Your task to perform on an android device: Open Reddit.com Image 0: 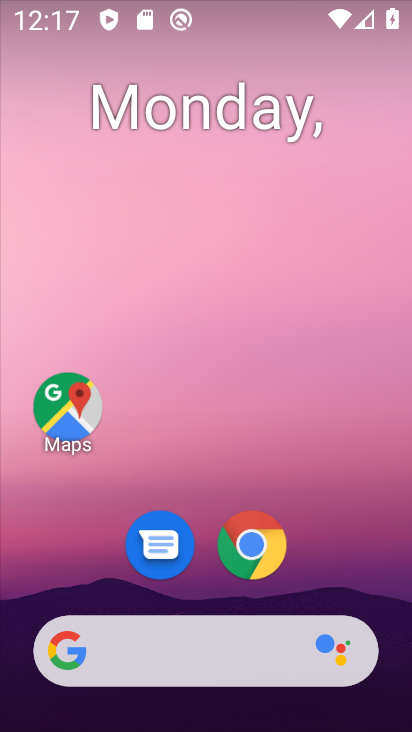
Step 0: press home button
Your task to perform on an android device: Open Reddit.com Image 1: 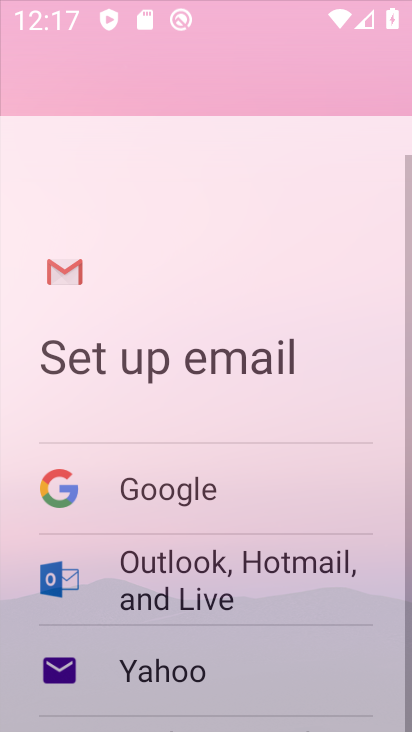
Step 1: drag from (204, 579) to (211, 434)
Your task to perform on an android device: Open Reddit.com Image 2: 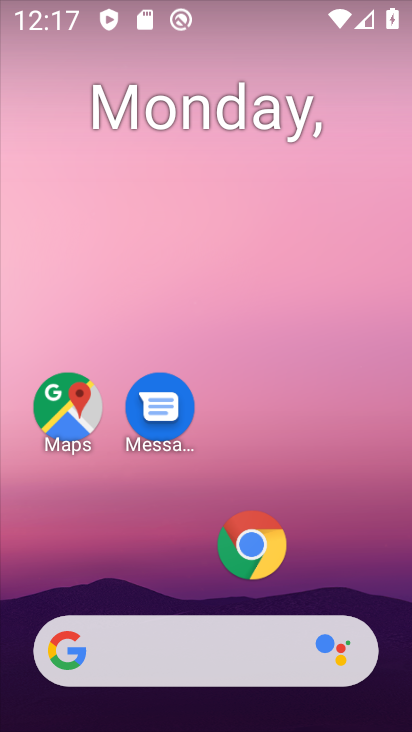
Step 2: drag from (189, 557) to (235, 184)
Your task to perform on an android device: Open Reddit.com Image 3: 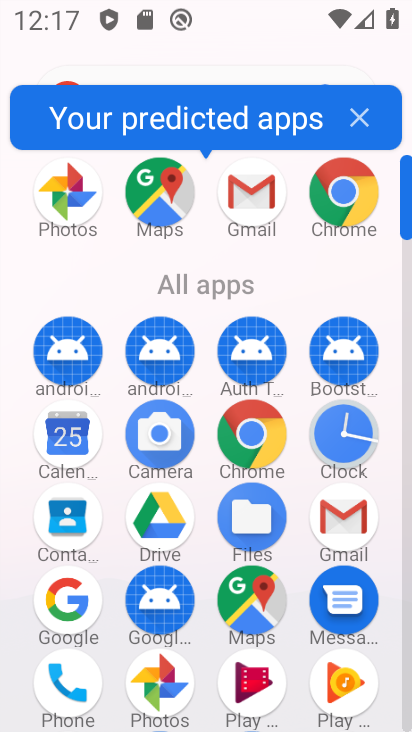
Step 3: click (68, 599)
Your task to perform on an android device: Open Reddit.com Image 4: 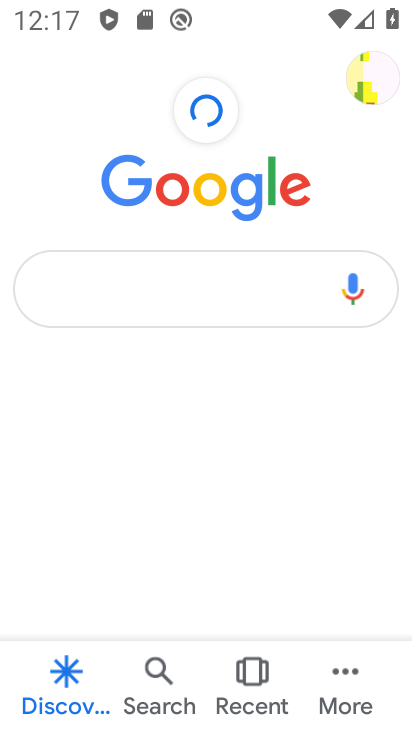
Step 4: click (150, 283)
Your task to perform on an android device: Open Reddit.com Image 5: 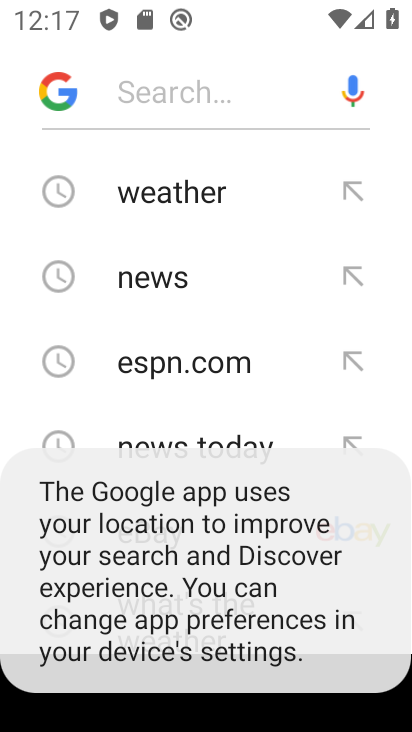
Step 5: drag from (207, 364) to (227, 110)
Your task to perform on an android device: Open Reddit.com Image 6: 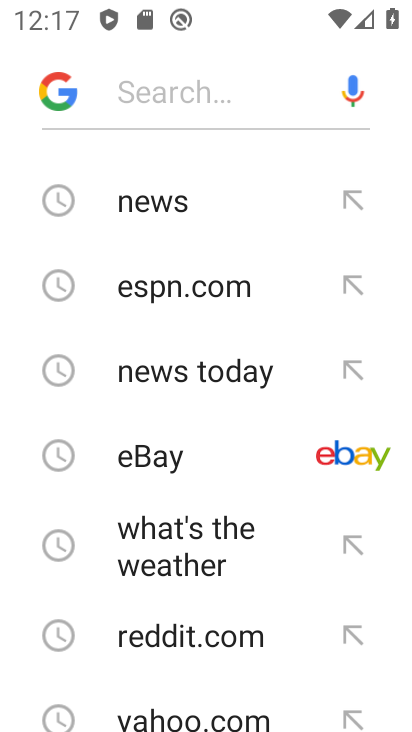
Step 6: click (164, 646)
Your task to perform on an android device: Open Reddit.com Image 7: 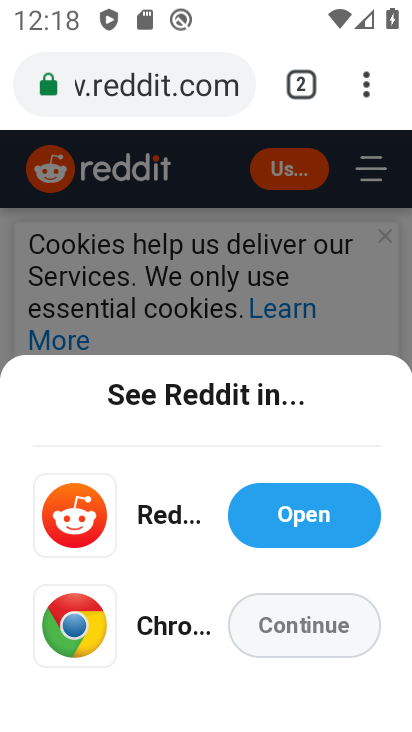
Step 7: task complete